Your task to perform on an android device: Open the calendar app, open the side menu, and click the "Day" option Image 0: 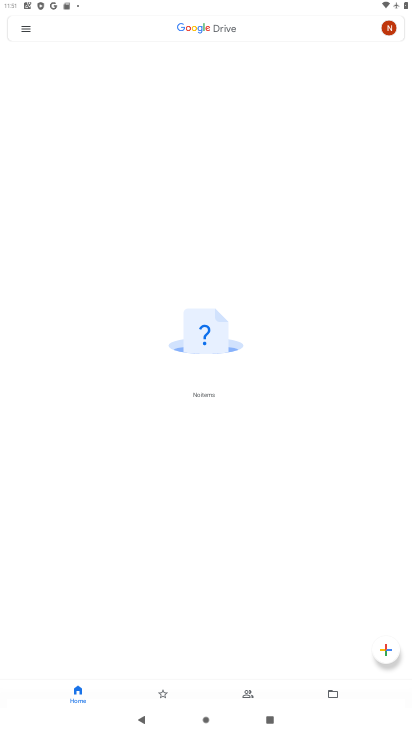
Step 0: press home button
Your task to perform on an android device: Open the calendar app, open the side menu, and click the "Day" option Image 1: 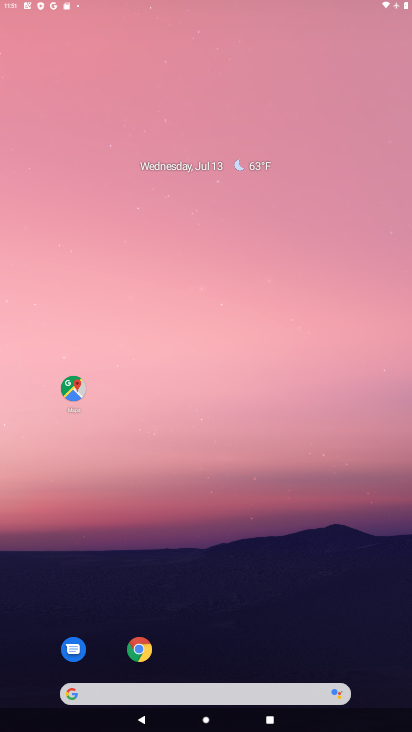
Step 1: drag from (239, 588) to (264, 217)
Your task to perform on an android device: Open the calendar app, open the side menu, and click the "Day" option Image 2: 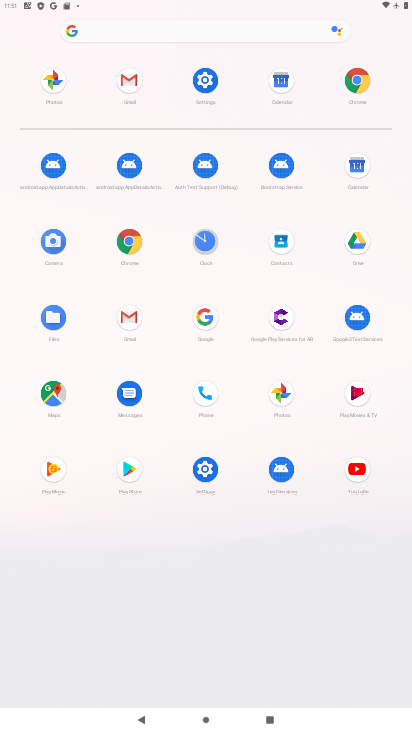
Step 2: click (347, 170)
Your task to perform on an android device: Open the calendar app, open the side menu, and click the "Day" option Image 3: 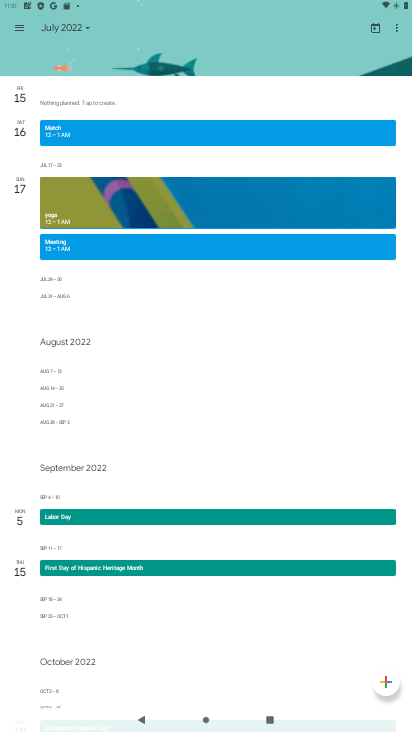
Step 3: click (16, 24)
Your task to perform on an android device: Open the calendar app, open the side menu, and click the "Day" option Image 4: 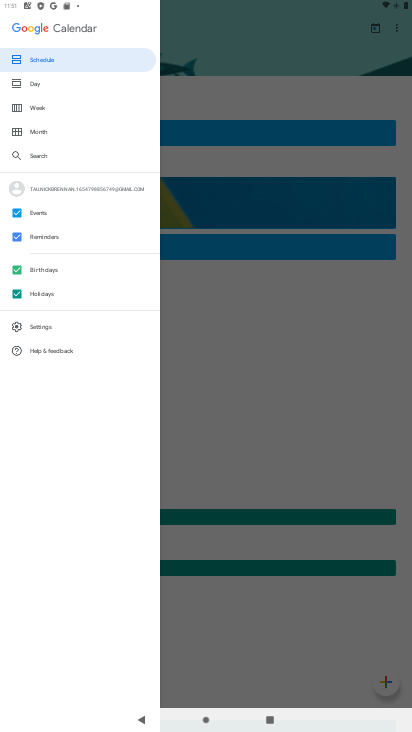
Step 4: click (48, 88)
Your task to perform on an android device: Open the calendar app, open the side menu, and click the "Day" option Image 5: 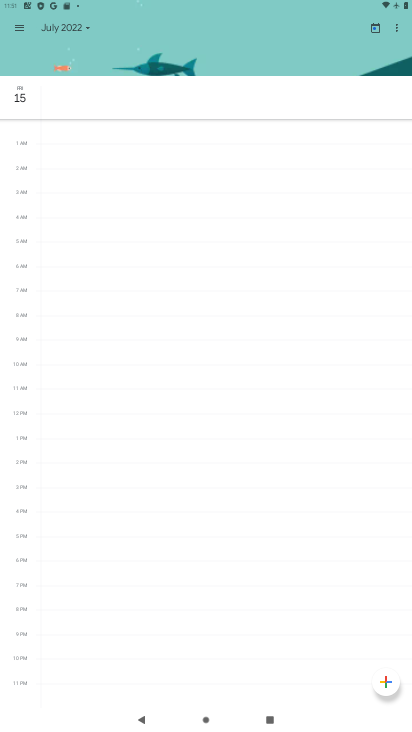
Step 5: task complete